Your task to perform on an android device: open device folders in google photos Image 0: 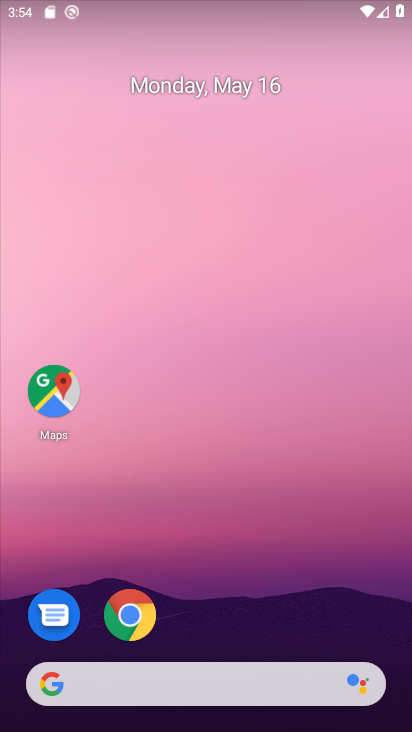
Step 0: drag from (215, 513) to (226, 127)
Your task to perform on an android device: open device folders in google photos Image 1: 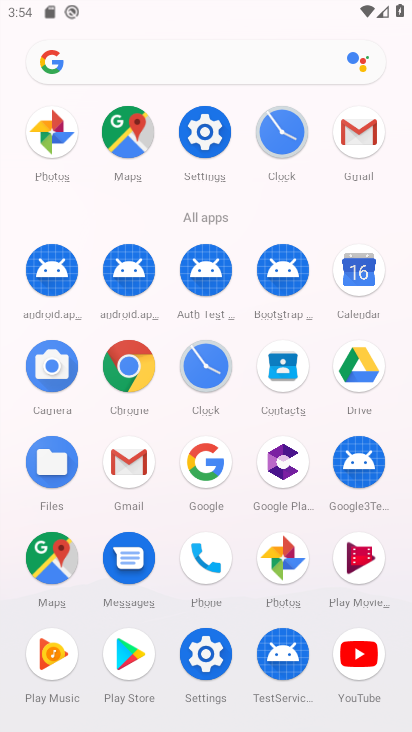
Step 1: click (46, 119)
Your task to perform on an android device: open device folders in google photos Image 2: 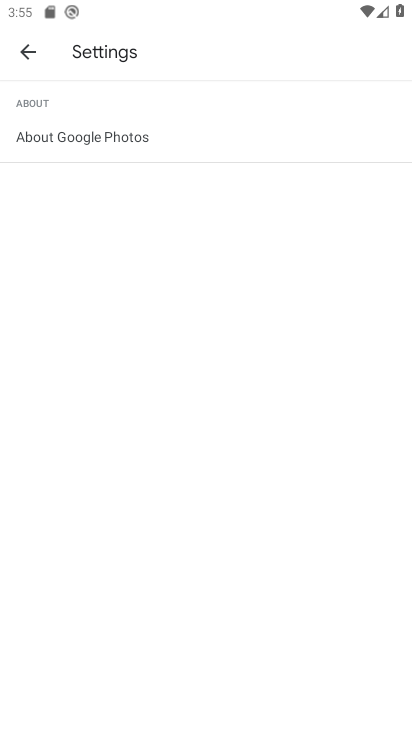
Step 2: click (27, 55)
Your task to perform on an android device: open device folders in google photos Image 3: 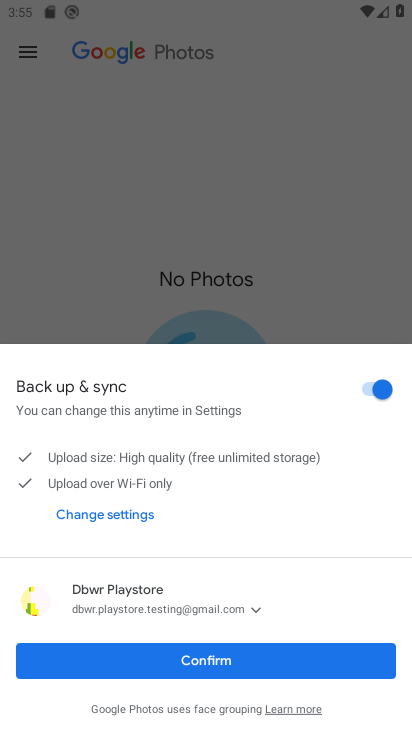
Step 3: click (223, 665)
Your task to perform on an android device: open device folders in google photos Image 4: 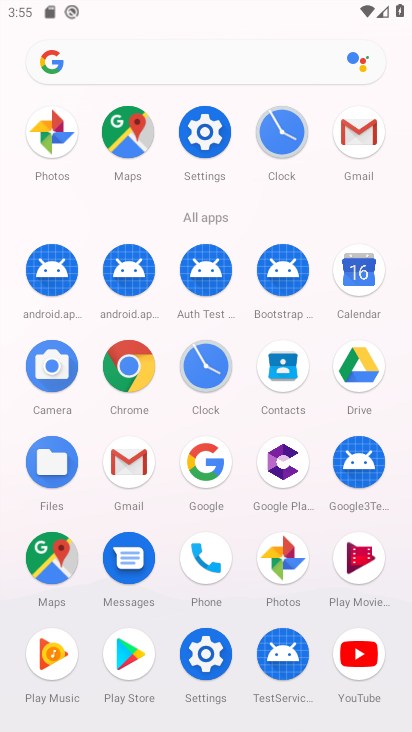
Step 4: click (39, 137)
Your task to perform on an android device: open device folders in google photos Image 5: 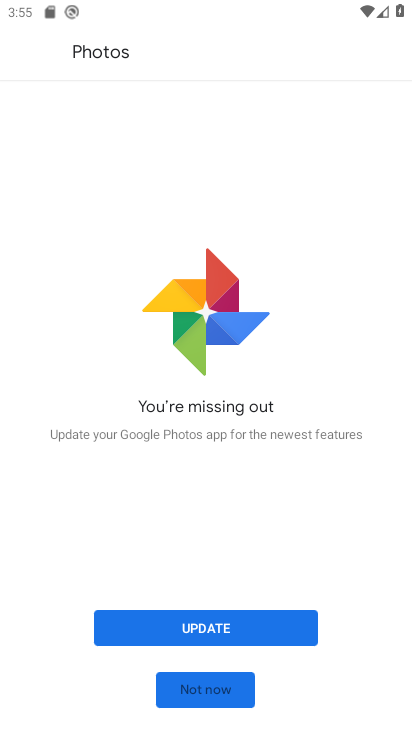
Step 5: click (192, 693)
Your task to perform on an android device: open device folders in google photos Image 6: 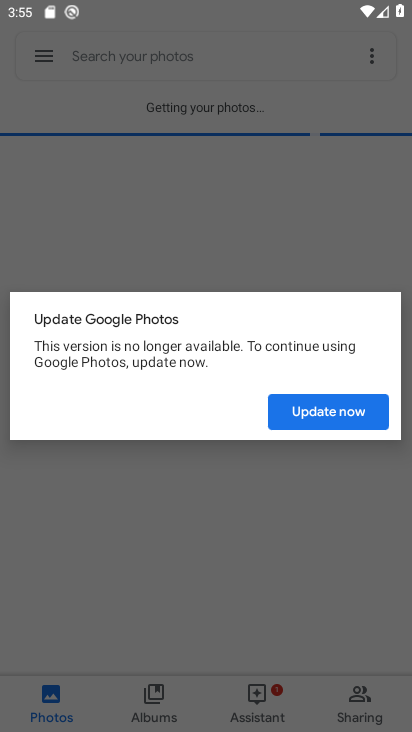
Step 6: click (292, 411)
Your task to perform on an android device: open device folders in google photos Image 7: 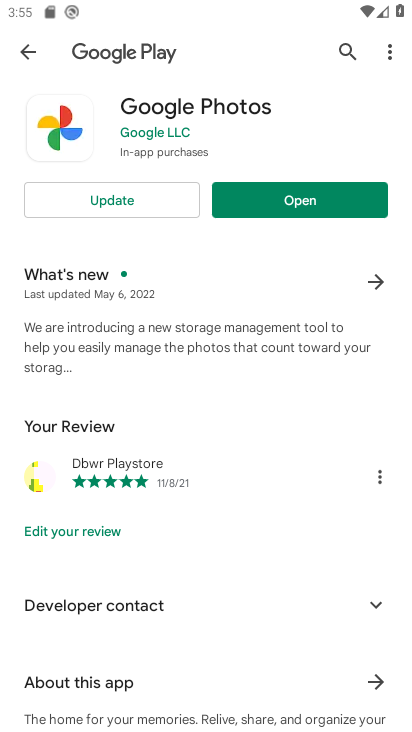
Step 7: click (180, 207)
Your task to perform on an android device: open device folders in google photos Image 8: 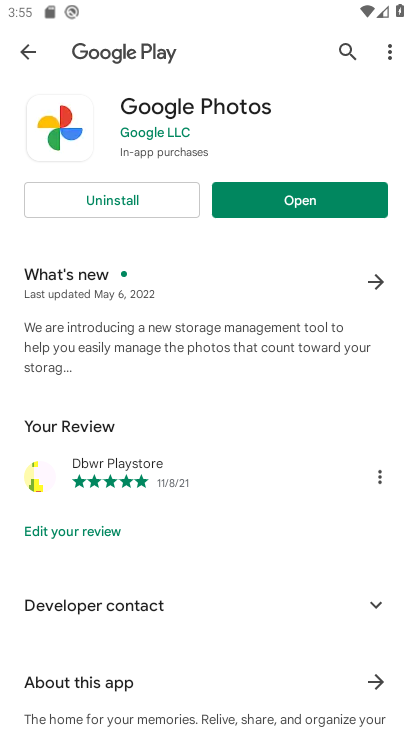
Step 8: click (265, 203)
Your task to perform on an android device: open device folders in google photos Image 9: 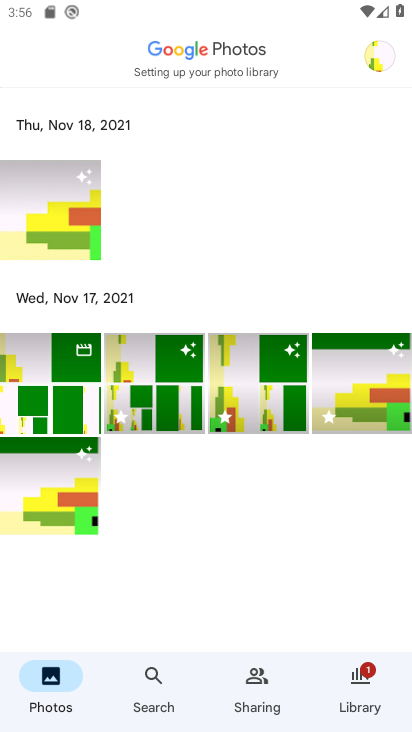
Step 9: click (383, 53)
Your task to perform on an android device: open device folders in google photos Image 10: 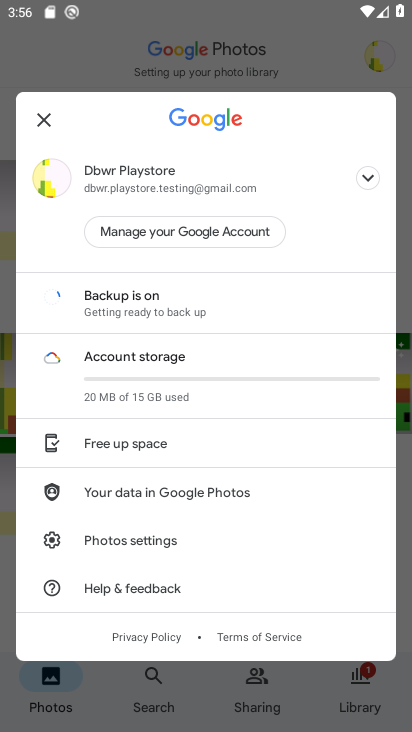
Step 10: task complete